Your task to perform on an android device: check google app version Image 0: 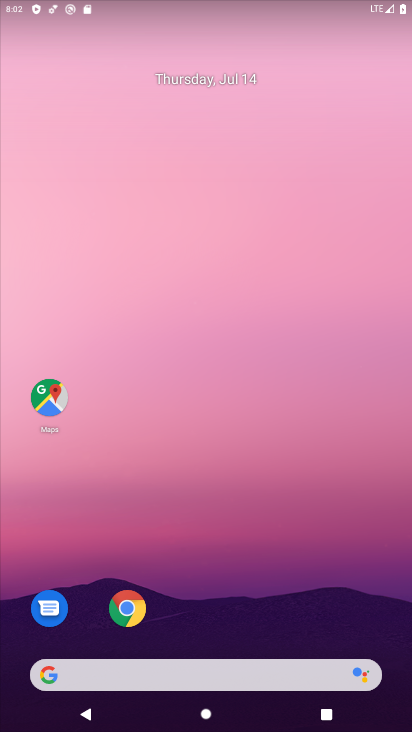
Step 0: drag from (230, 528) to (131, 20)
Your task to perform on an android device: check google app version Image 1: 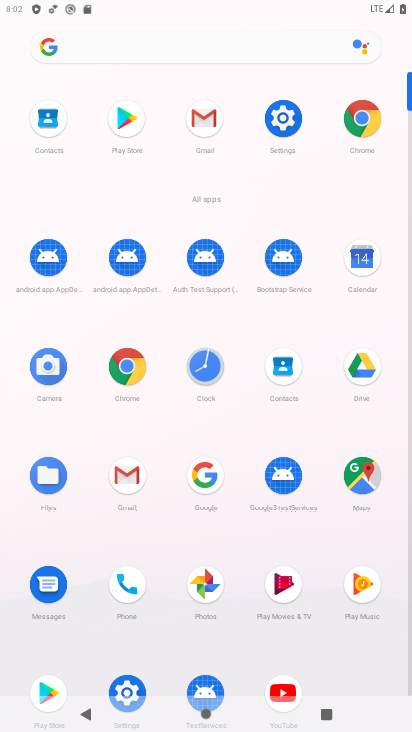
Step 1: click (203, 473)
Your task to perform on an android device: check google app version Image 2: 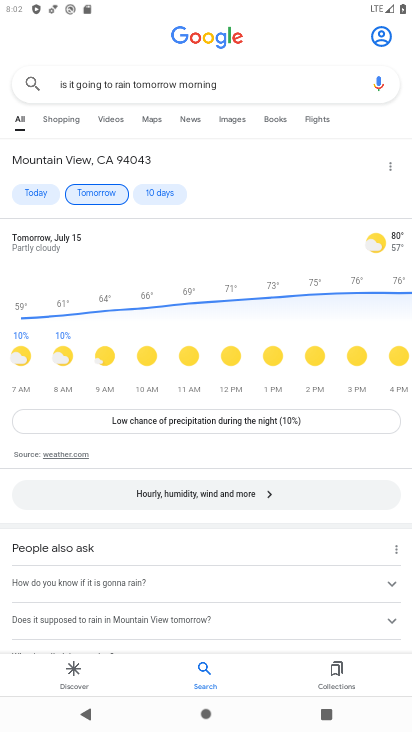
Step 2: click (382, 35)
Your task to perform on an android device: check google app version Image 3: 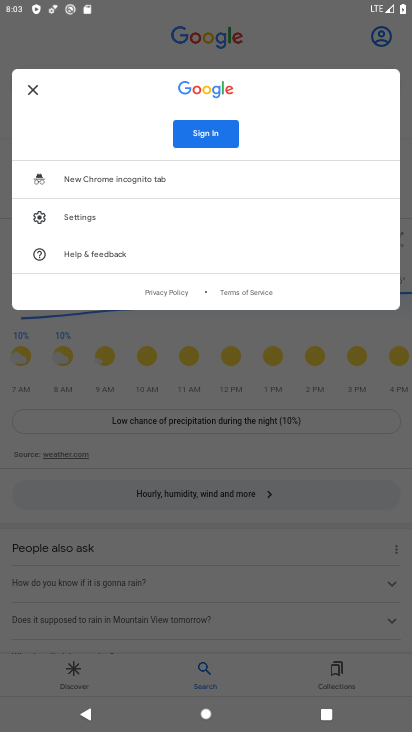
Step 3: click (63, 216)
Your task to perform on an android device: check google app version Image 4: 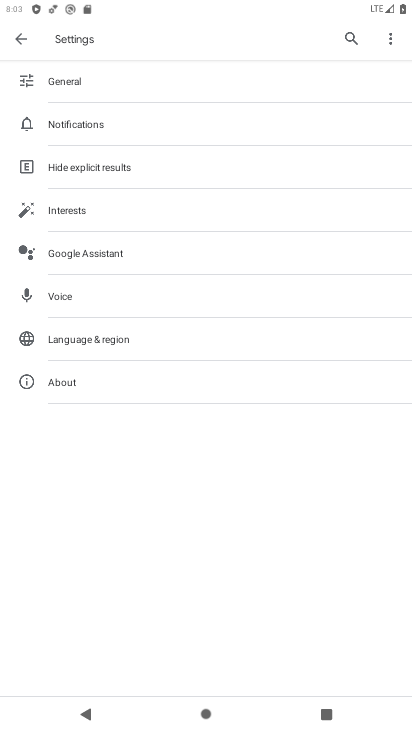
Step 4: click (61, 386)
Your task to perform on an android device: check google app version Image 5: 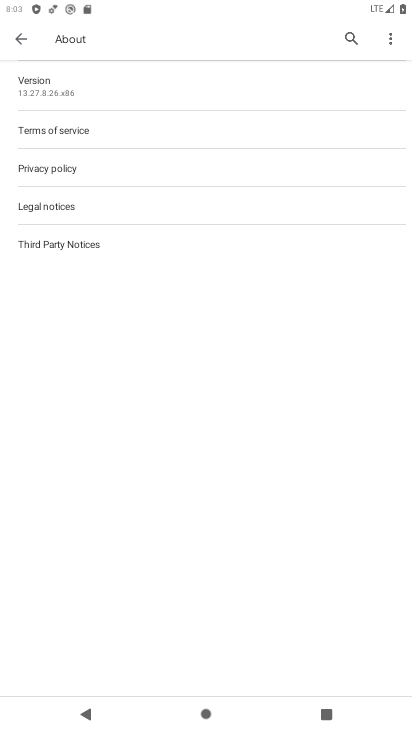
Step 5: task complete